Your task to perform on an android device: Open the map Image 0: 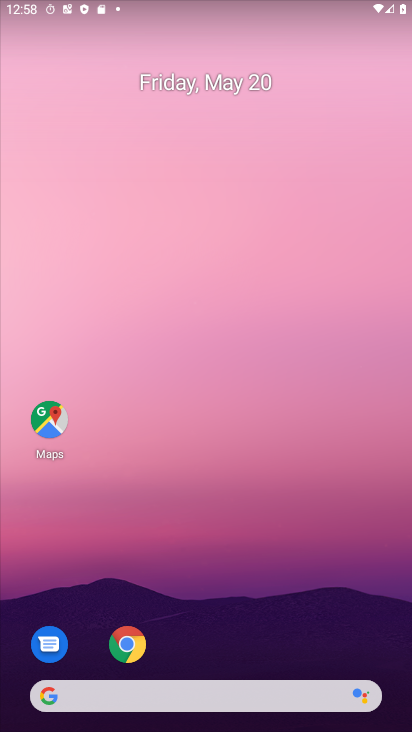
Step 0: drag from (305, 591) to (347, 113)
Your task to perform on an android device: Open the map Image 1: 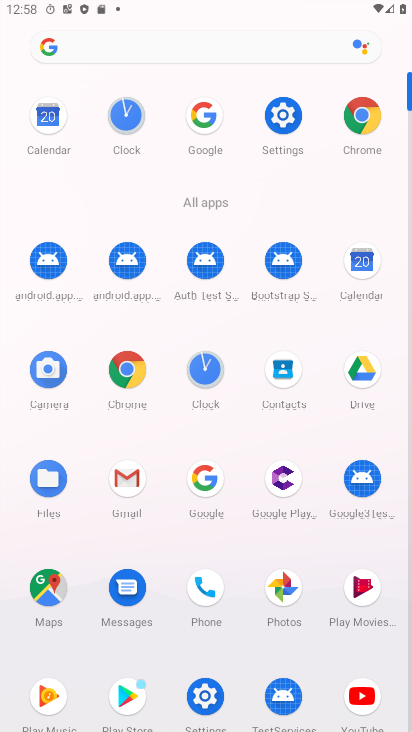
Step 1: click (49, 600)
Your task to perform on an android device: Open the map Image 2: 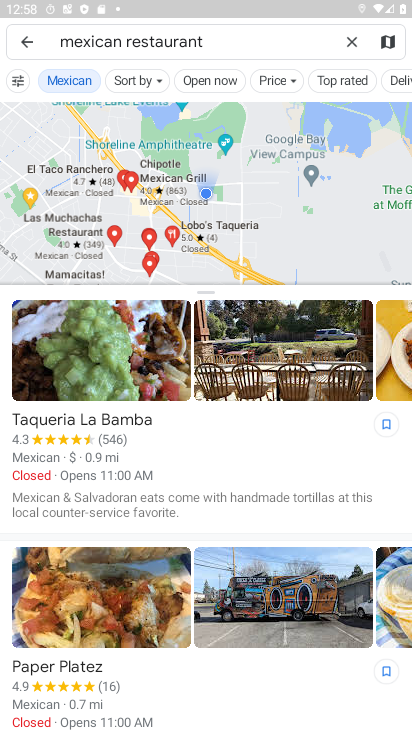
Step 2: task complete